Your task to perform on an android device: Open the calendar and show me this week's events? Image 0: 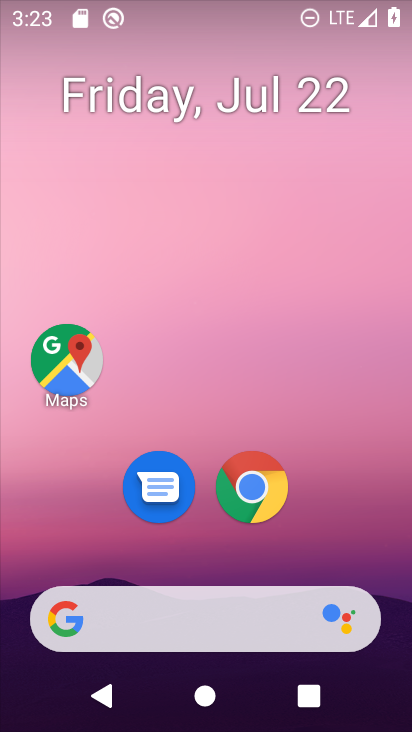
Step 0: drag from (166, 524) to (222, 36)
Your task to perform on an android device: Open the calendar and show me this week's events? Image 1: 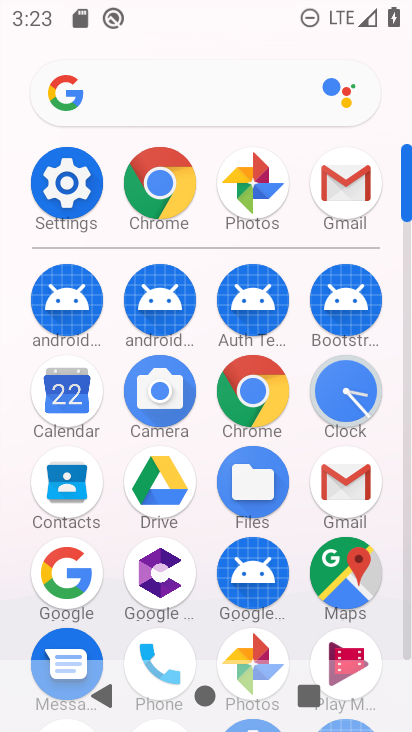
Step 1: click (61, 393)
Your task to perform on an android device: Open the calendar and show me this week's events? Image 2: 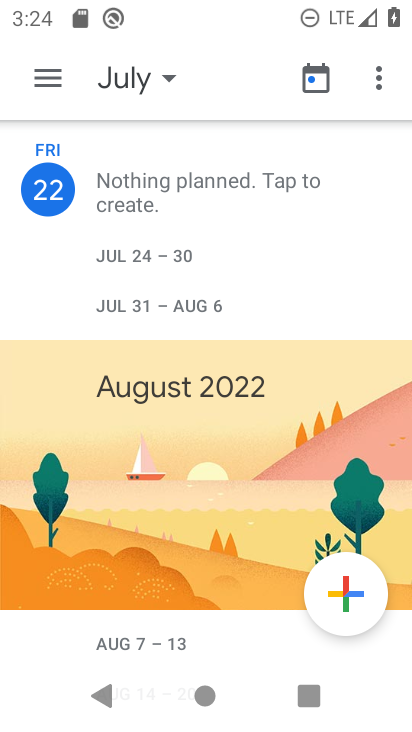
Step 2: click (160, 79)
Your task to perform on an android device: Open the calendar and show me this week's events? Image 3: 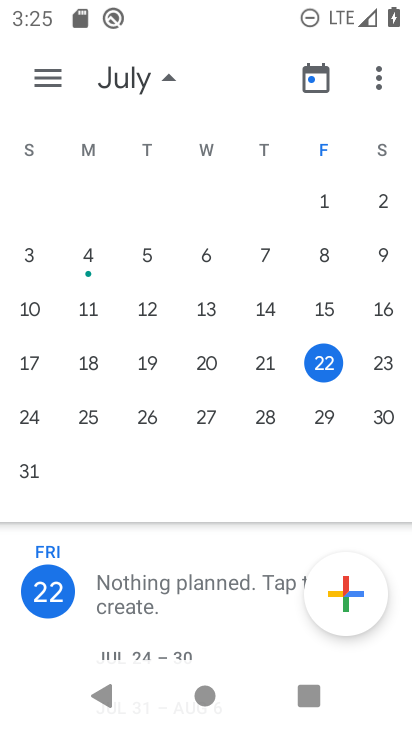
Step 3: drag from (391, 307) to (43, 297)
Your task to perform on an android device: Open the calendar and show me this week's events? Image 4: 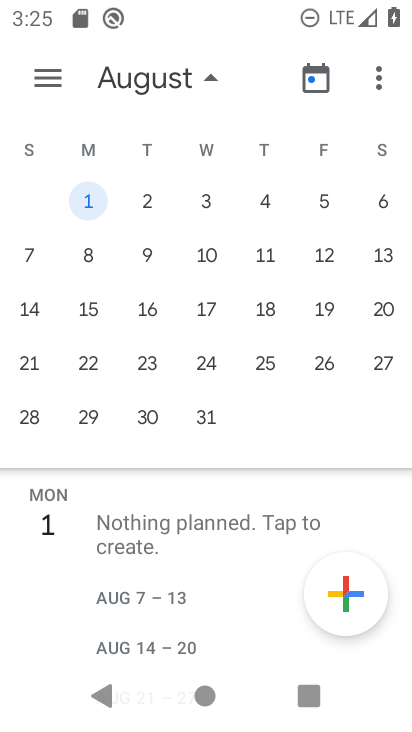
Step 4: drag from (25, 303) to (94, 333)
Your task to perform on an android device: Open the calendar and show me this week's events? Image 5: 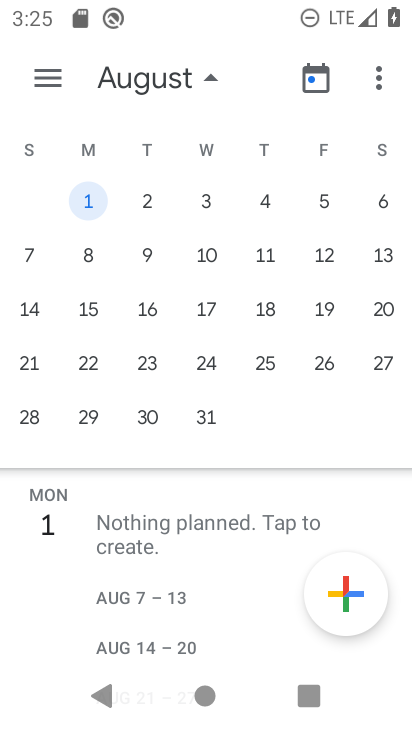
Step 5: drag from (78, 311) to (404, 299)
Your task to perform on an android device: Open the calendar and show me this week's events? Image 6: 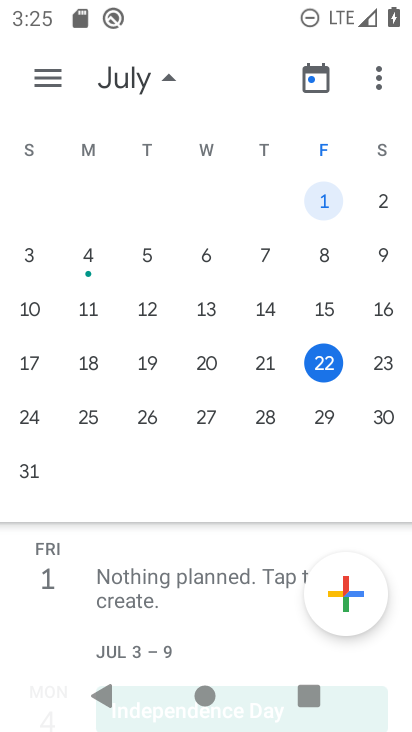
Step 6: click (317, 361)
Your task to perform on an android device: Open the calendar and show me this week's events? Image 7: 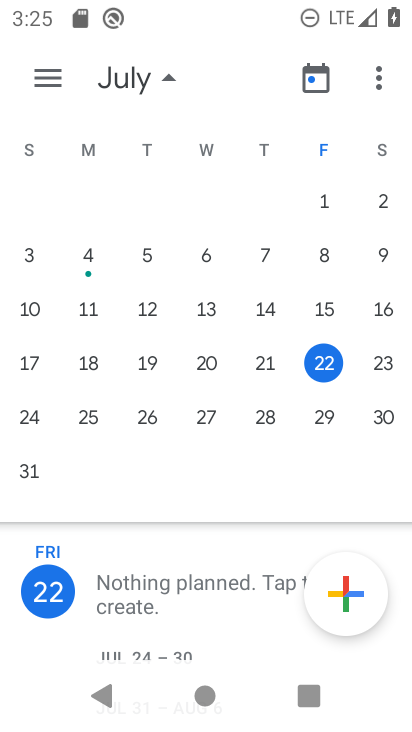
Step 7: task complete